Your task to perform on an android device: Open settings on Google Maps Image 0: 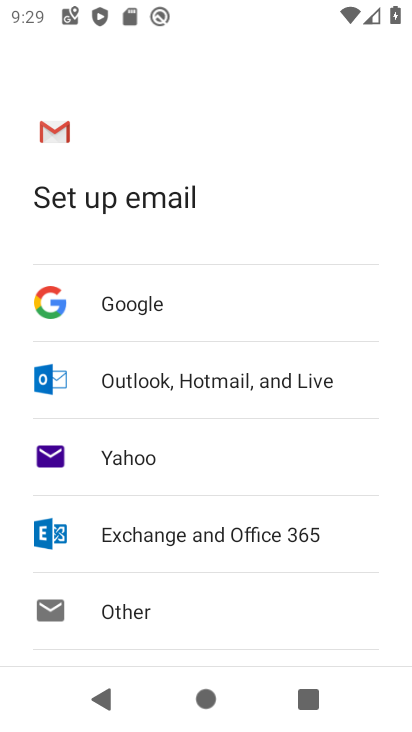
Step 0: press home button
Your task to perform on an android device: Open settings on Google Maps Image 1: 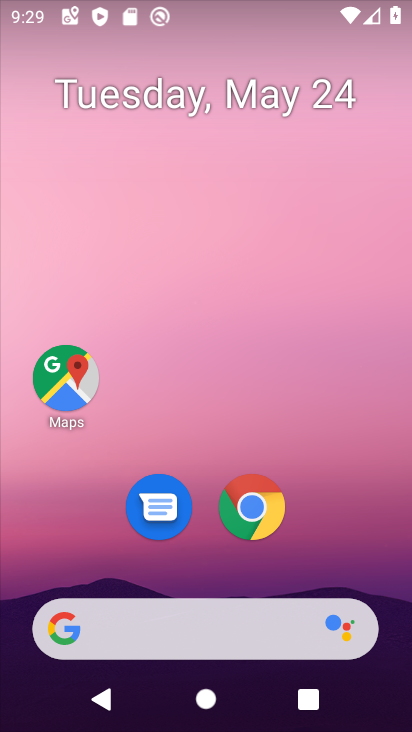
Step 1: click (52, 400)
Your task to perform on an android device: Open settings on Google Maps Image 2: 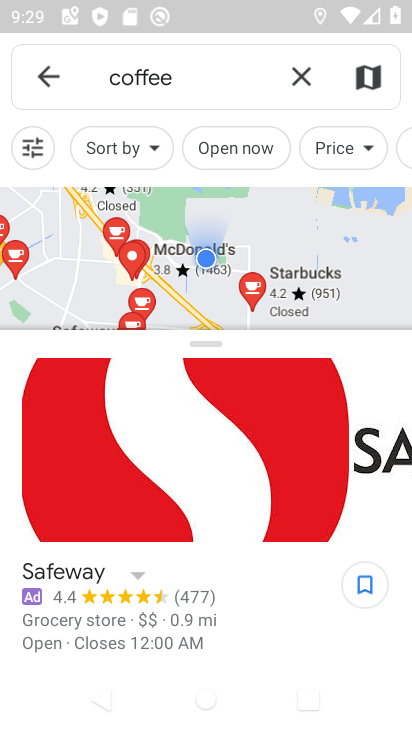
Step 2: click (58, 81)
Your task to perform on an android device: Open settings on Google Maps Image 3: 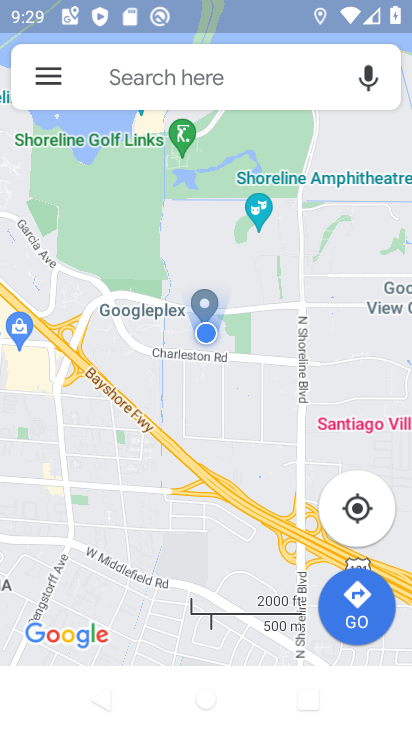
Step 3: click (75, 82)
Your task to perform on an android device: Open settings on Google Maps Image 4: 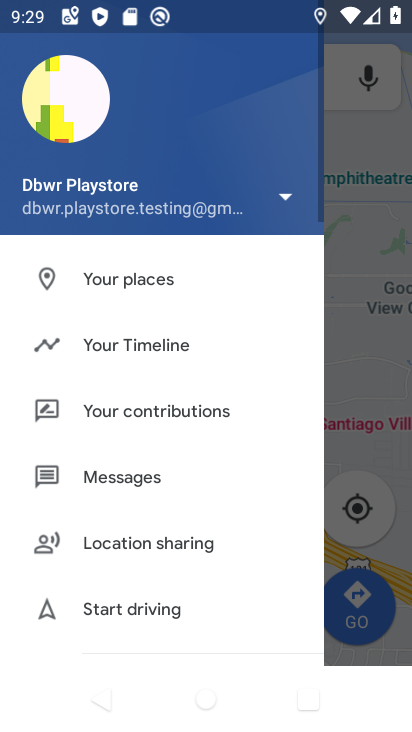
Step 4: drag from (155, 635) to (247, 276)
Your task to perform on an android device: Open settings on Google Maps Image 5: 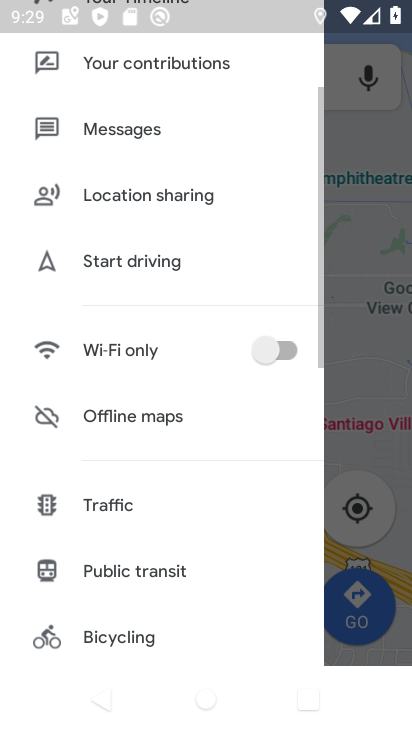
Step 5: drag from (146, 612) to (198, 275)
Your task to perform on an android device: Open settings on Google Maps Image 6: 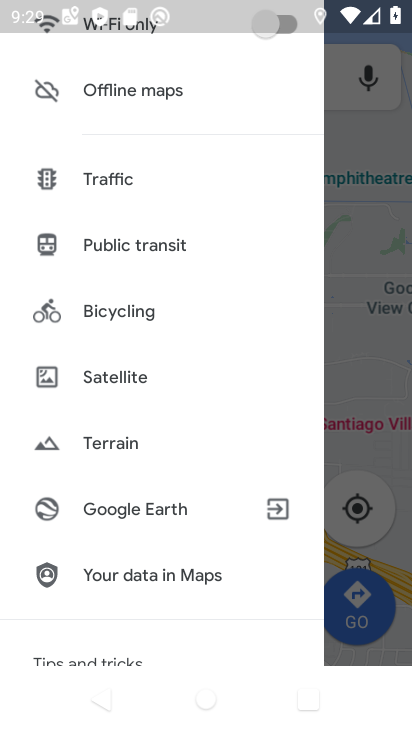
Step 6: drag from (127, 557) to (160, 164)
Your task to perform on an android device: Open settings on Google Maps Image 7: 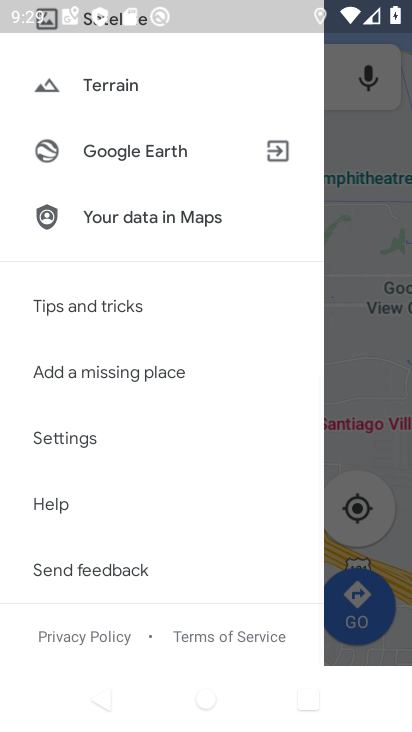
Step 7: click (137, 437)
Your task to perform on an android device: Open settings on Google Maps Image 8: 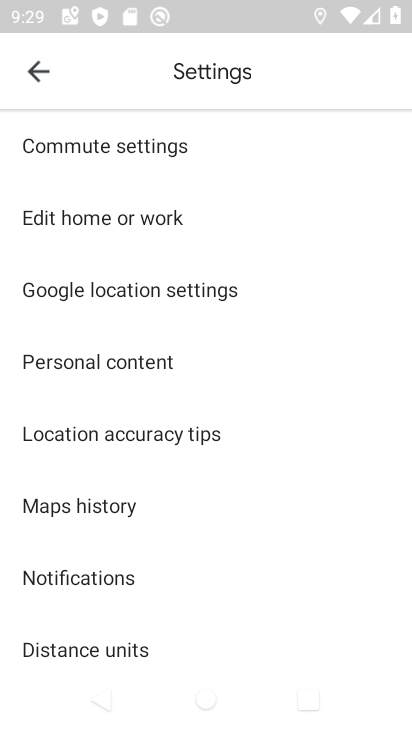
Step 8: task complete